Your task to perform on an android device: Go to Amazon Image 0: 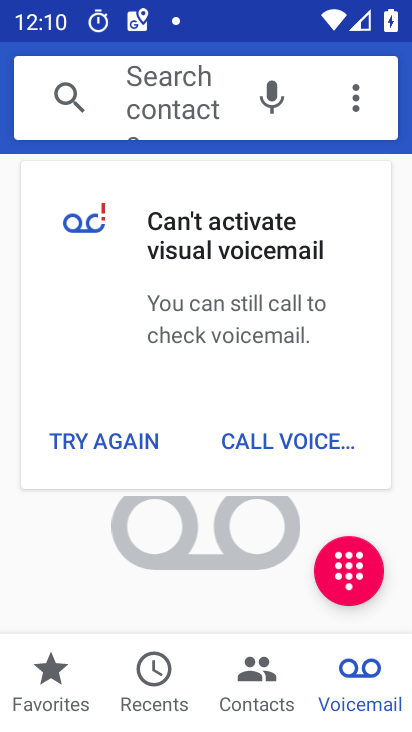
Step 0: press home button
Your task to perform on an android device: Go to Amazon Image 1: 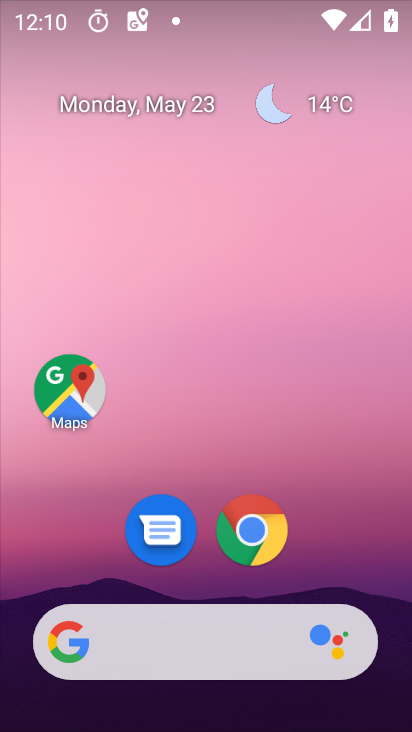
Step 1: click (235, 532)
Your task to perform on an android device: Go to Amazon Image 2: 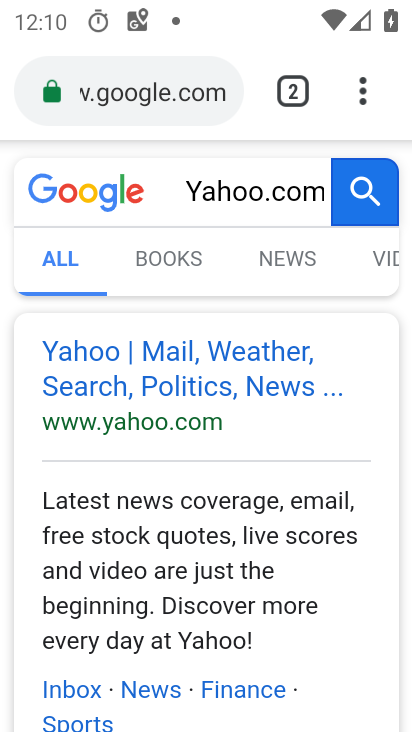
Step 2: click (232, 92)
Your task to perform on an android device: Go to Amazon Image 3: 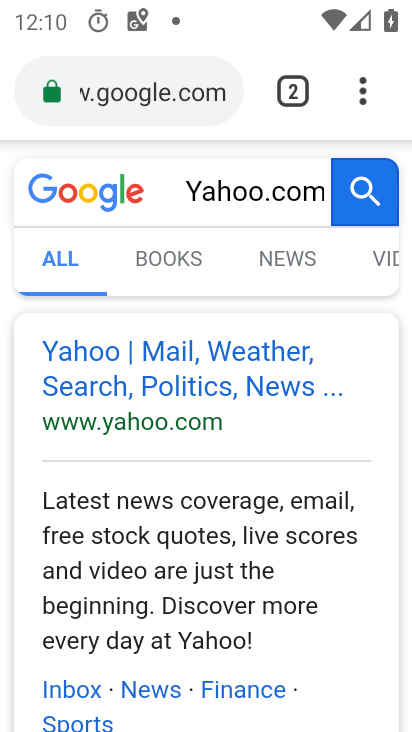
Step 3: click (234, 89)
Your task to perform on an android device: Go to Amazon Image 4: 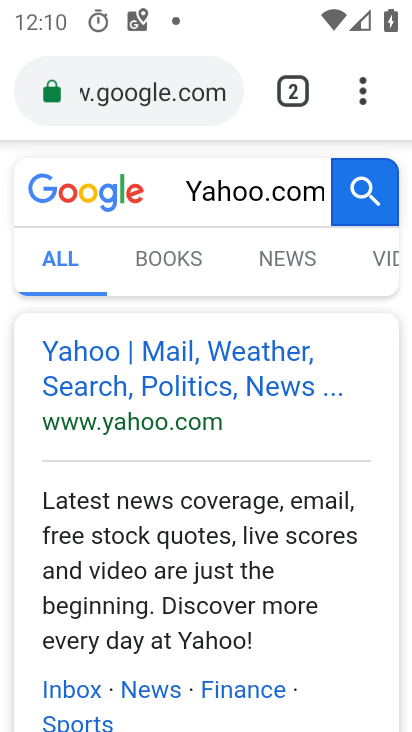
Step 4: click (227, 91)
Your task to perform on an android device: Go to Amazon Image 5: 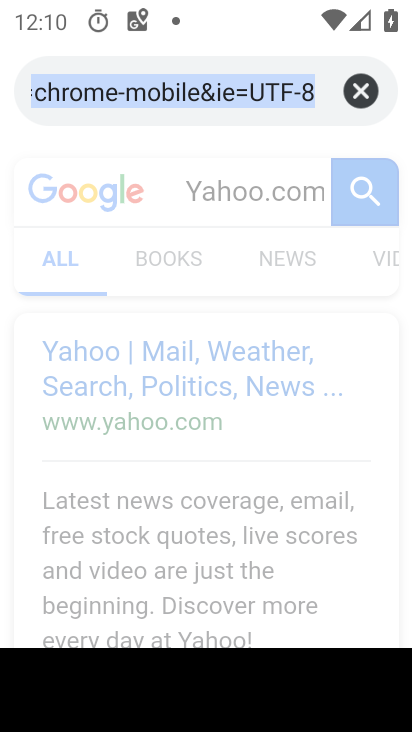
Step 5: click (364, 94)
Your task to perform on an android device: Go to Amazon Image 6: 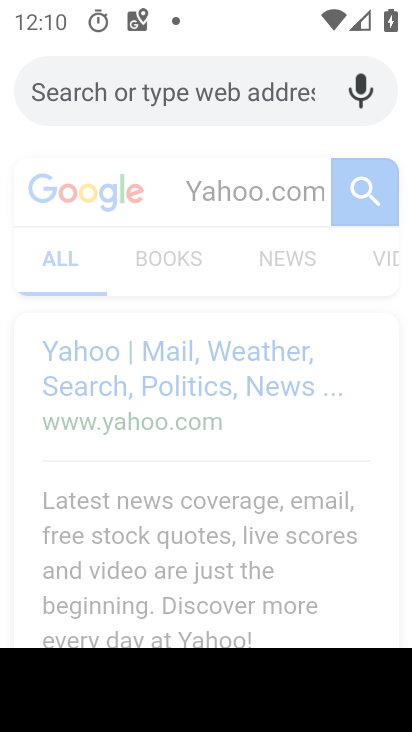
Step 6: type "Amazon"
Your task to perform on an android device: Go to Amazon Image 7: 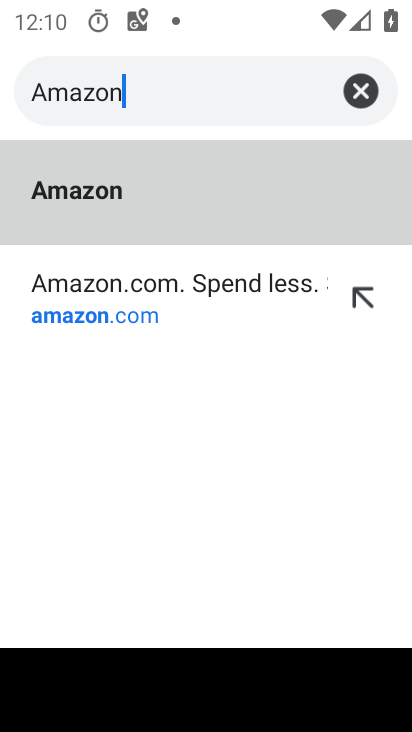
Step 7: click (83, 192)
Your task to perform on an android device: Go to Amazon Image 8: 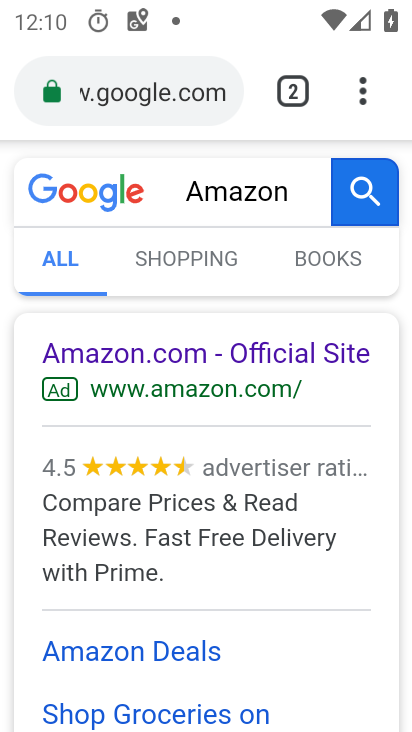
Step 8: task complete